Your task to perform on an android device: empty trash in google photos Image 0: 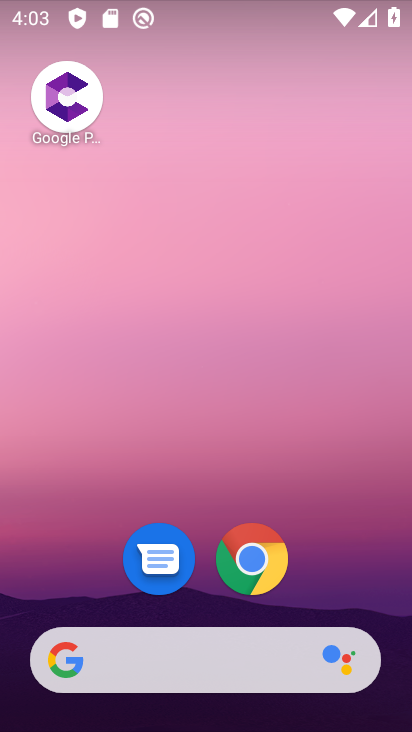
Step 0: drag from (325, 598) to (332, 0)
Your task to perform on an android device: empty trash in google photos Image 1: 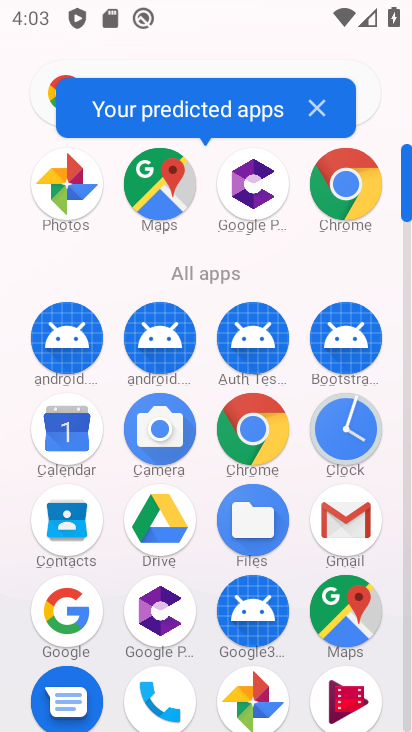
Step 1: click (52, 183)
Your task to perform on an android device: empty trash in google photos Image 2: 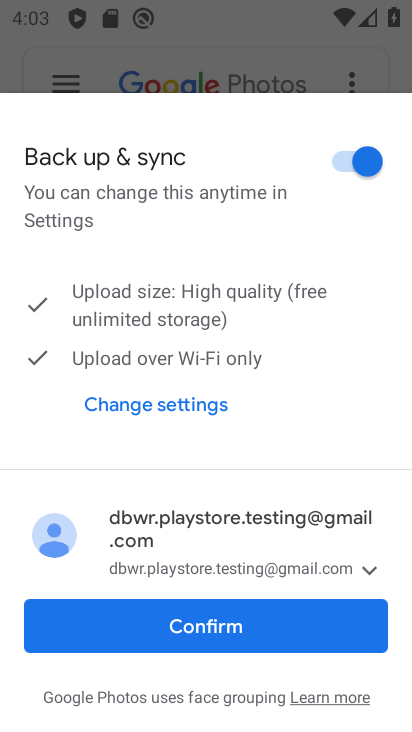
Step 2: click (142, 629)
Your task to perform on an android device: empty trash in google photos Image 3: 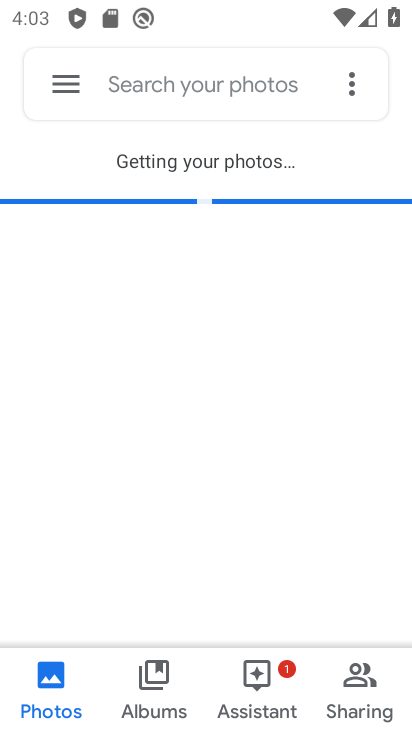
Step 3: click (79, 82)
Your task to perform on an android device: empty trash in google photos Image 4: 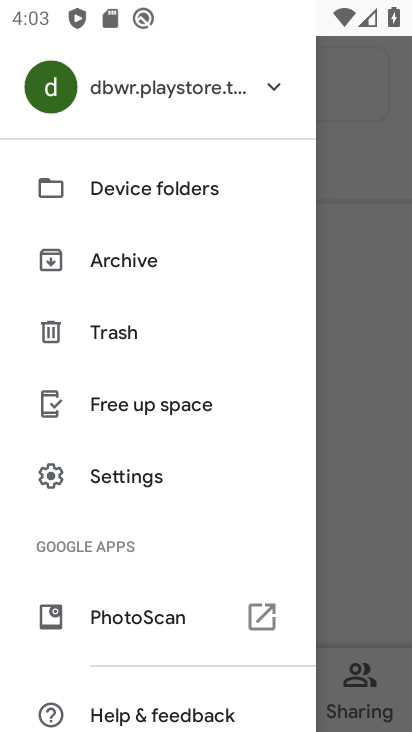
Step 4: click (100, 331)
Your task to perform on an android device: empty trash in google photos Image 5: 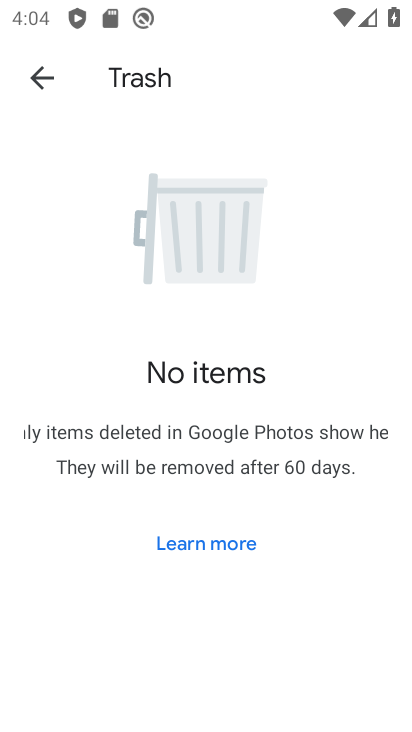
Step 5: task complete